Your task to perform on an android device: clear all cookies in the chrome app Image 0: 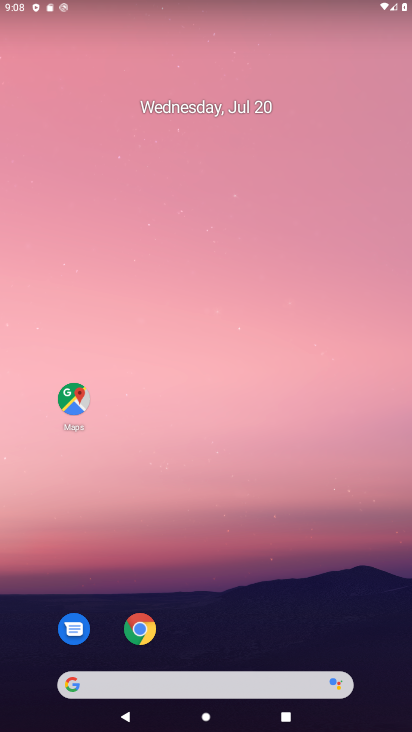
Step 0: drag from (362, 127) to (1, 378)
Your task to perform on an android device: clear all cookies in the chrome app Image 1: 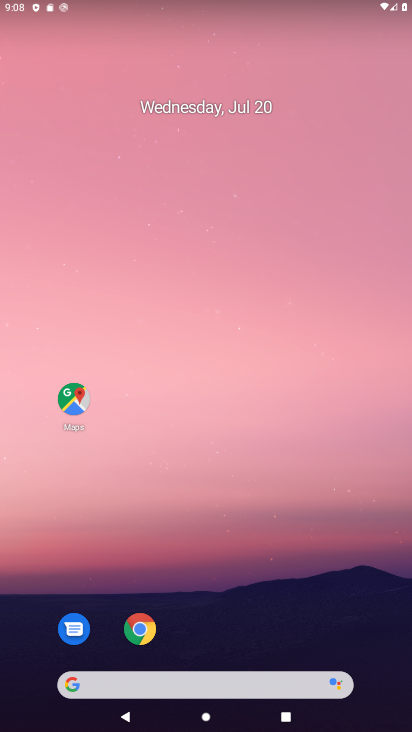
Step 1: drag from (291, 588) to (403, 215)
Your task to perform on an android device: clear all cookies in the chrome app Image 2: 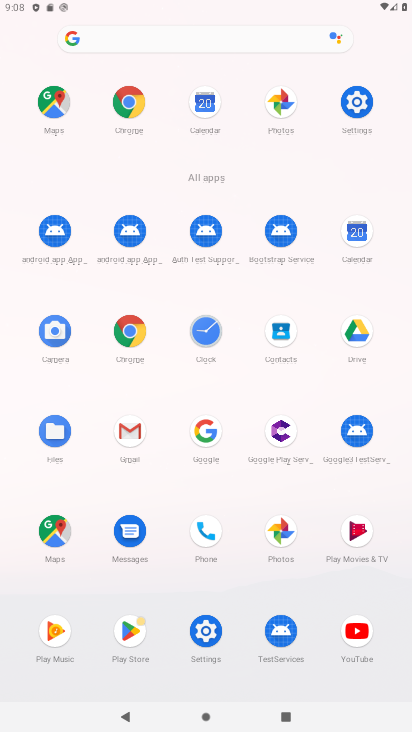
Step 2: click (120, 101)
Your task to perform on an android device: clear all cookies in the chrome app Image 3: 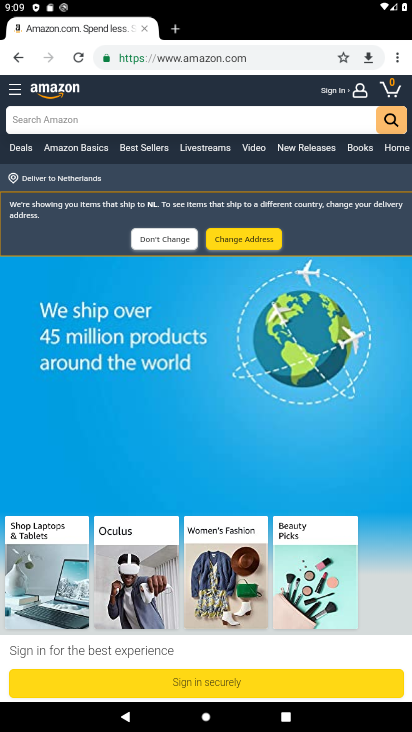
Step 3: drag from (402, 60) to (291, 172)
Your task to perform on an android device: clear all cookies in the chrome app Image 4: 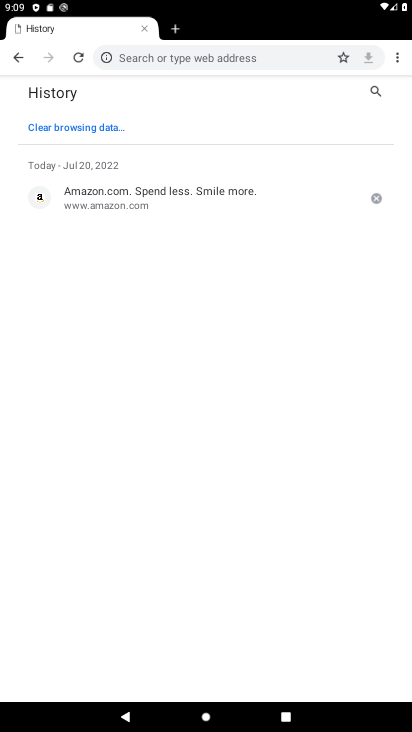
Step 4: click (51, 125)
Your task to perform on an android device: clear all cookies in the chrome app Image 5: 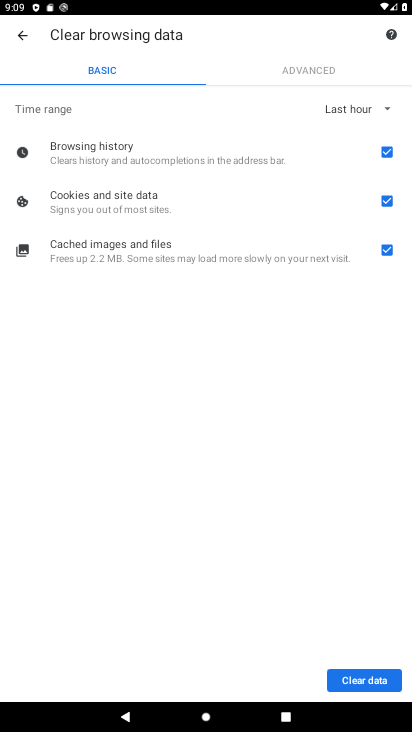
Step 5: click (384, 152)
Your task to perform on an android device: clear all cookies in the chrome app Image 6: 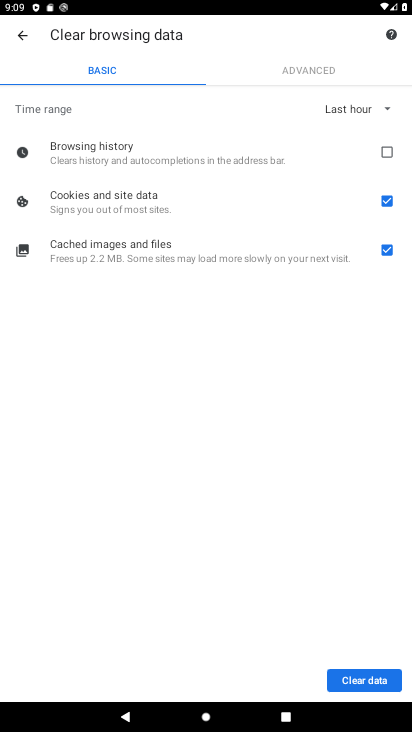
Step 6: click (383, 250)
Your task to perform on an android device: clear all cookies in the chrome app Image 7: 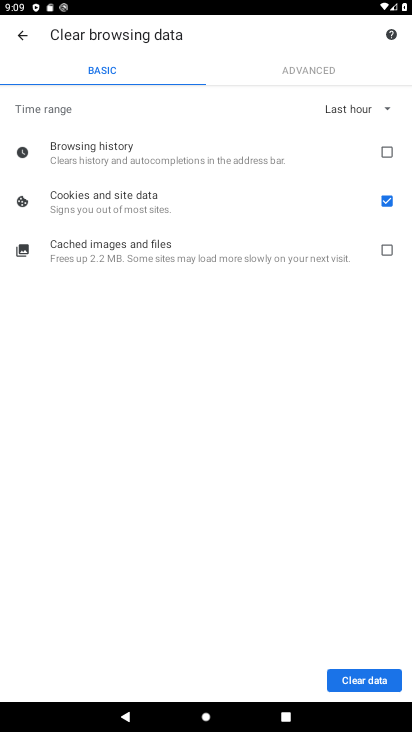
Step 7: click (371, 679)
Your task to perform on an android device: clear all cookies in the chrome app Image 8: 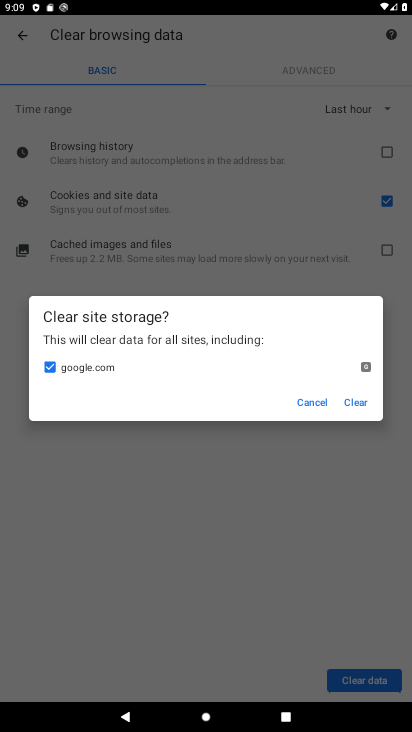
Step 8: click (352, 396)
Your task to perform on an android device: clear all cookies in the chrome app Image 9: 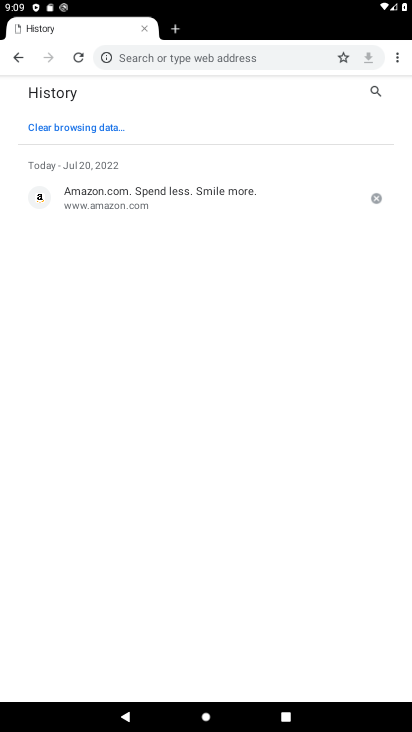
Step 9: task complete